Your task to perform on an android device: turn pop-ups on in chrome Image 0: 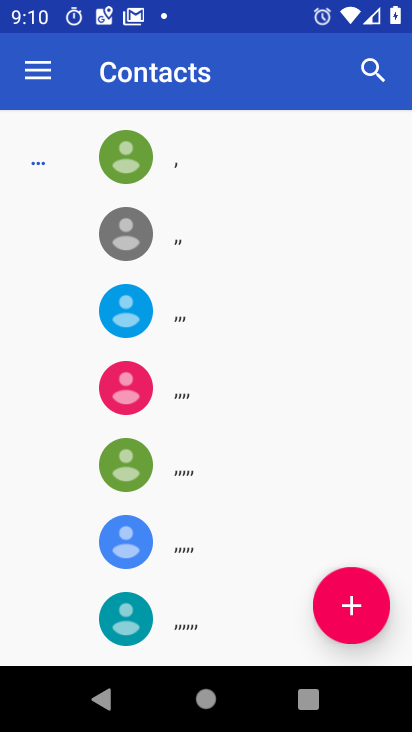
Step 0: press home button
Your task to perform on an android device: turn pop-ups on in chrome Image 1: 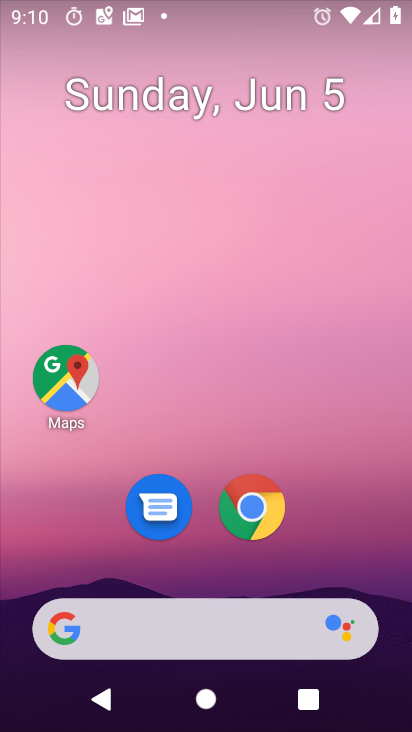
Step 1: drag from (195, 667) to (297, 139)
Your task to perform on an android device: turn pop-ups on in chrome Image 2: 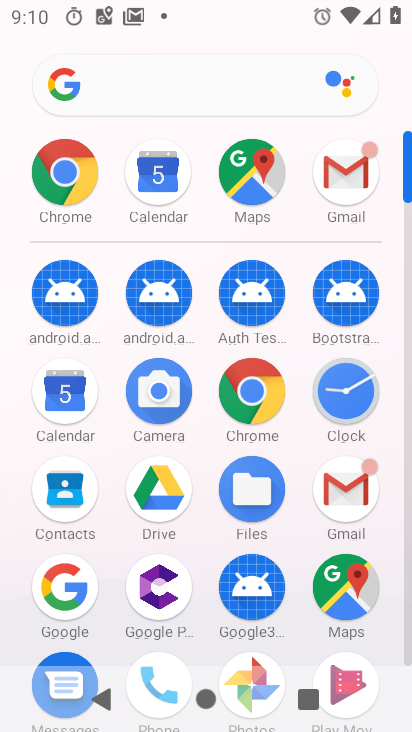
Step 2: click (44, 162)
Your task to perform on an android device: turn pop-ups on in chrome Image 3: 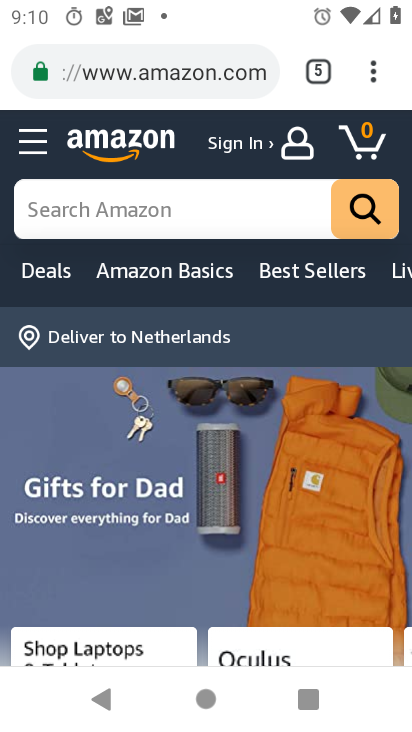
Step 3: click (360, 90)
Your task to perform on an android device: turn pop-ups on in chrome Image 4: 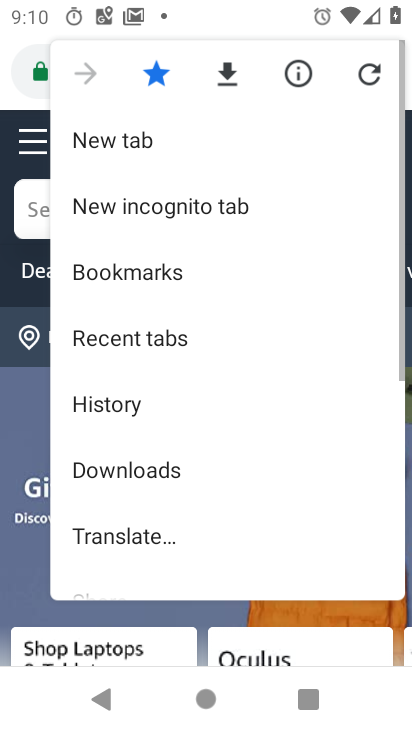
Step 4: drag from (159, 506) to (99, 207)
Your task to perform on an android device: turn pop-ups on in chrome Image 5: 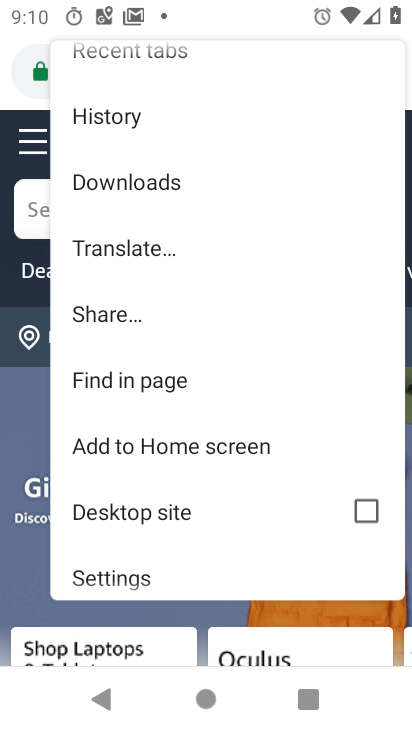
Step 5: click (141, 571)
Your task to perform on an android device: turn pop-ups on in chrome Image 6: 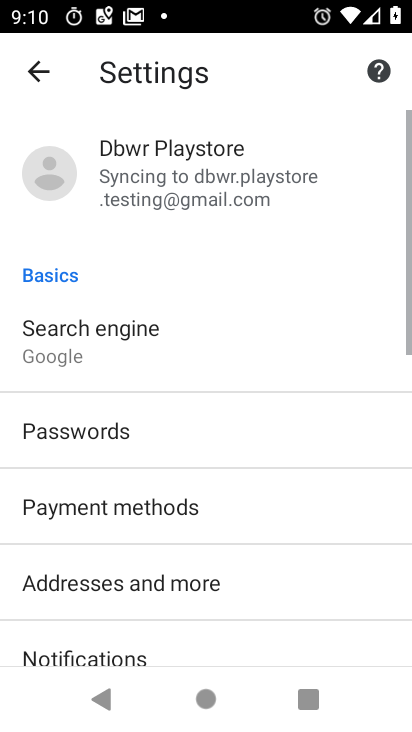
Step 6: drag from (147, 557) to (218, 262)
Your task to perform on an android device: turn pop-ups on in chrome Image 7: 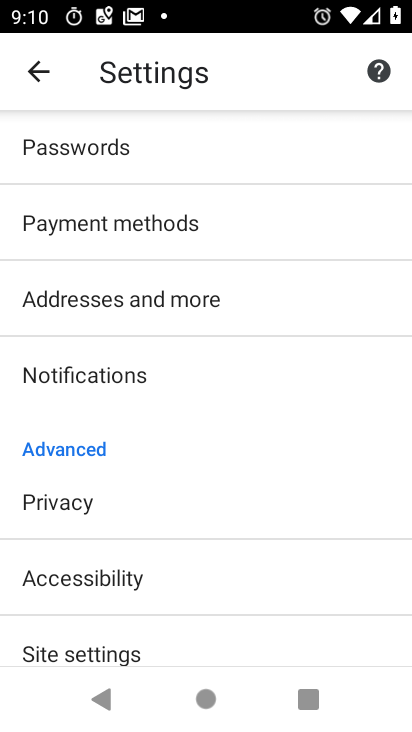
Step 7: click (114, 643)
Your task to perform on an android device: turn pop-ups on in chrome Image 8: 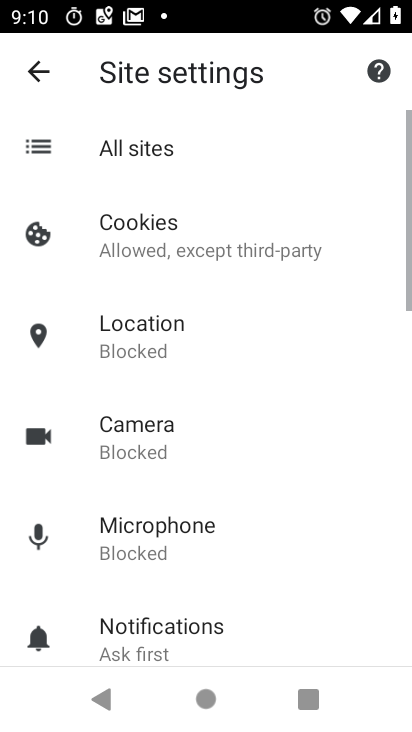
Step 8: drag from (151, 562) to (158, 251)
Your task to perform on an android device: turn pop-ups on in chrome Image 9: 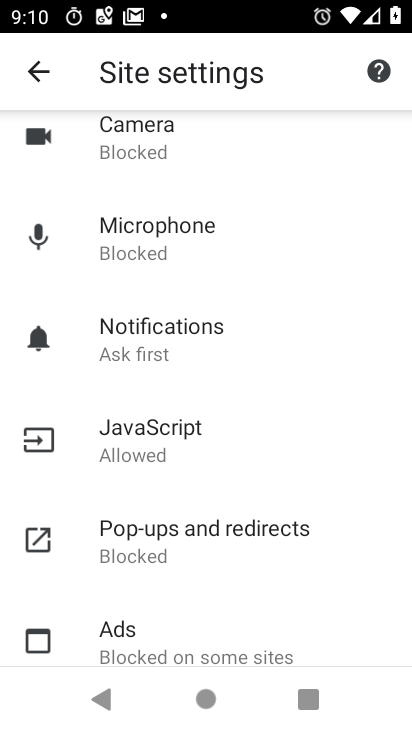
Step 9: click (151, 522)
Your task to perform on an android device: turn pop-ups on in chrome Image 10: 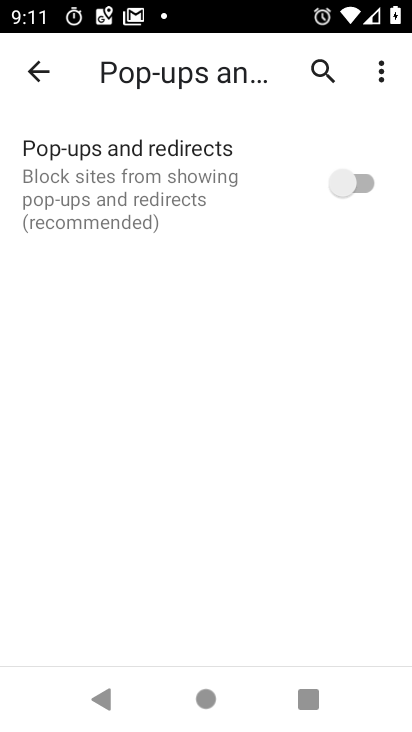
Step 10: click (376, 183)
Your task to perform on an android device: turn pop-ups on in chrome Image 11: 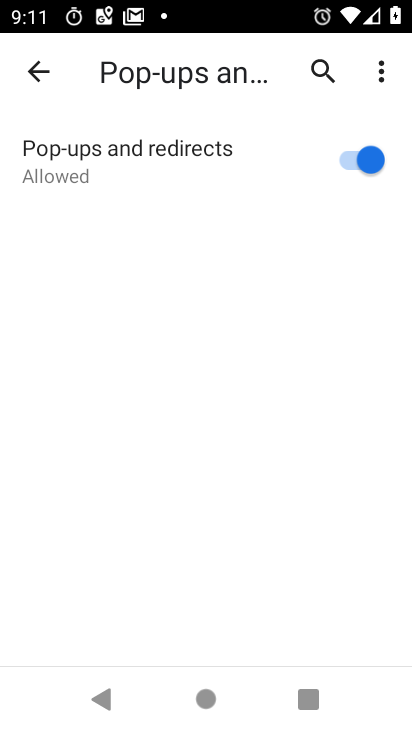
Step 11: task complete